Your task to perform on an android device: turn on wifi Image 0: 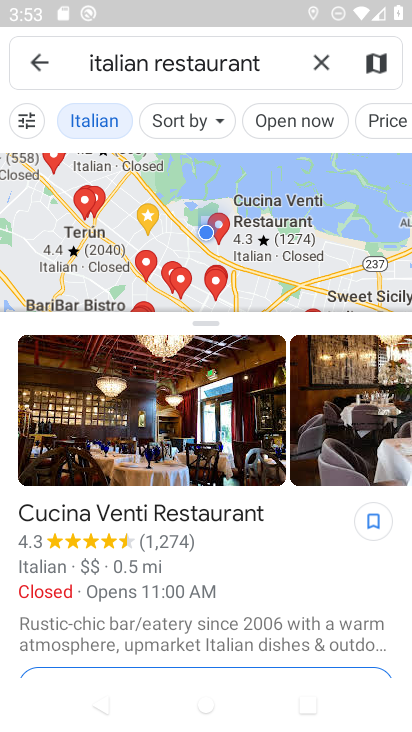
Step 0: press home button
Your task to perform on an android device: turn on wifi Image 1: 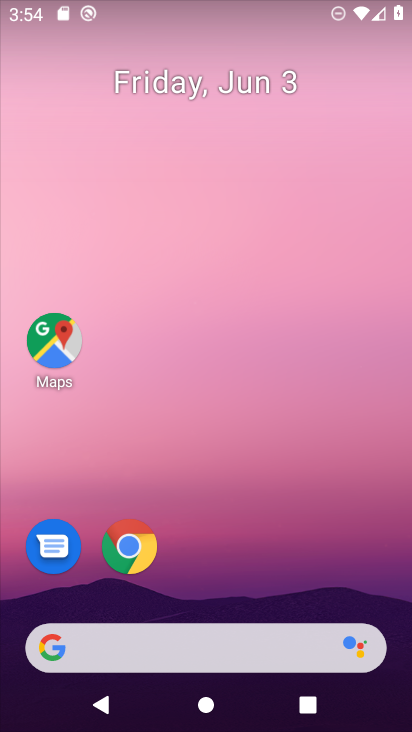
Step 1: click (253, 21)
Your task to perform on an android device: turn on wifi Image 2: 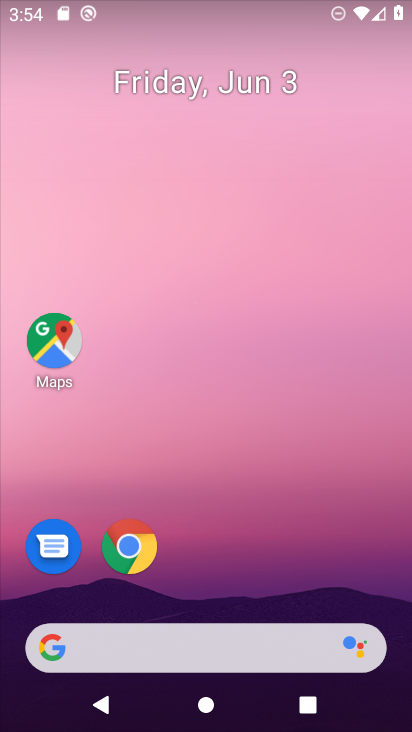
Step 2: drag from (239, 587) to (255, 7)
Your task to perform on an android device: turn on wifi Image 3: 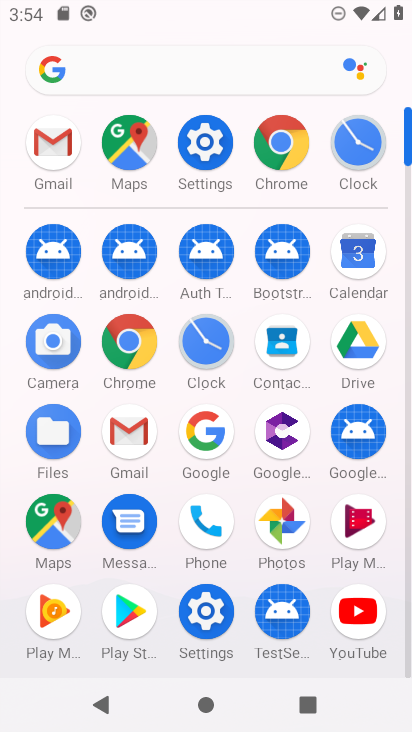
Step 3: click (197, 136)
Your task to perform on an android device: turn on wifi Image 4: 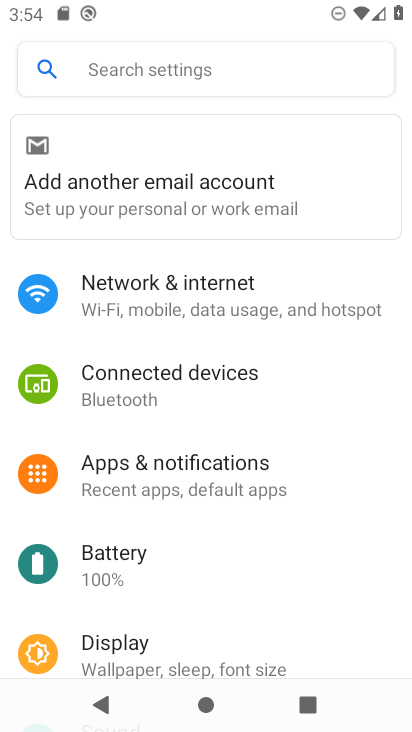
Step 4: click (209, 292)
Your task to perform on an android device: turn on wifi Image 5: 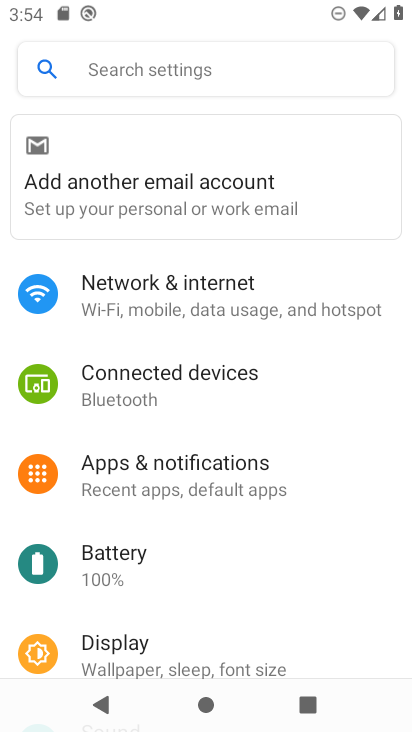
Step 5: click (209, 281)
Your task to perform on an android device: turn on wifi Image 6: 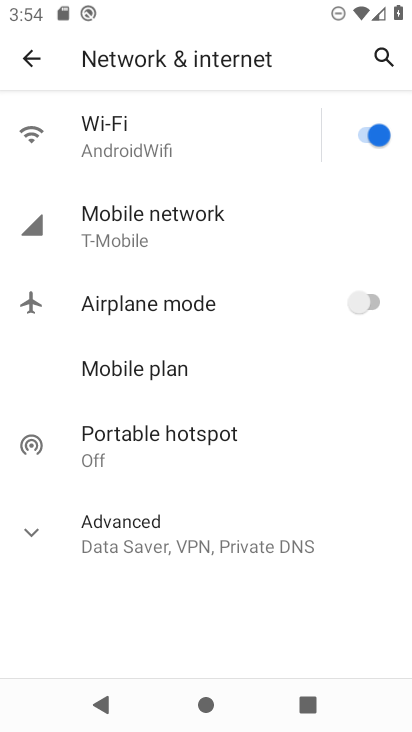
Step 6: task complete